Your task to perform on an android device: toggle pop-ups in chrome Image 0: 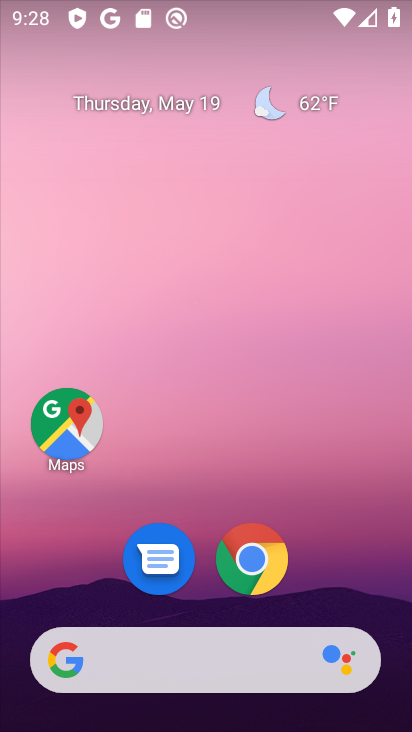
Step 0: click (256, 567)
Your task to perform on an android device: toggle pop-ups in chrome Image 1: 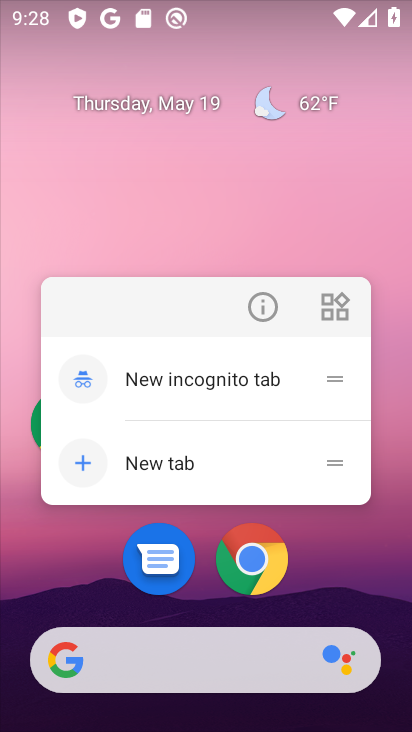
Step 1: click (258, 562)
Your task to perform on an android device: toggle pop-ups in chrome Image 2: 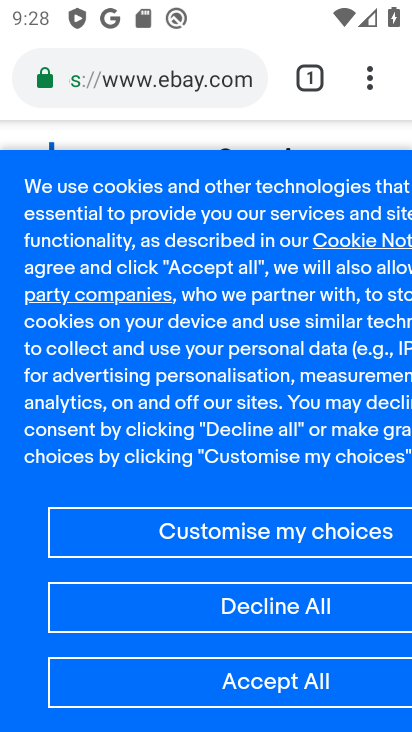
Step 2: drag from (366, 75) to (153, 621)
Your task to perform on an android device: toggle pop-ups in chrome Image 3: 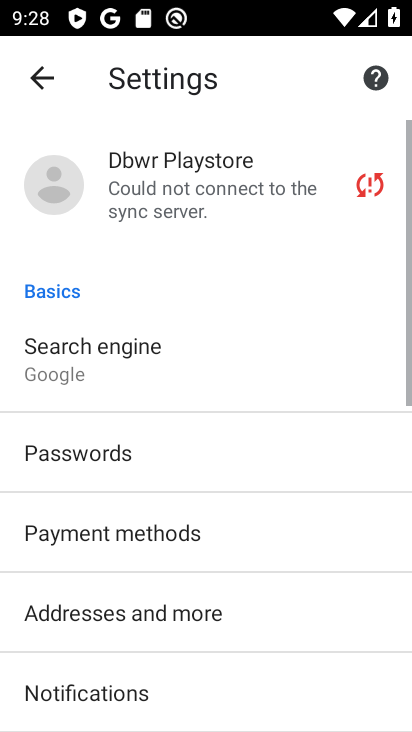
Step 3: drag from (154, 619) to (351, 119)
Your task to perform on an android device: toggle pop-ups in chrome Image 4: 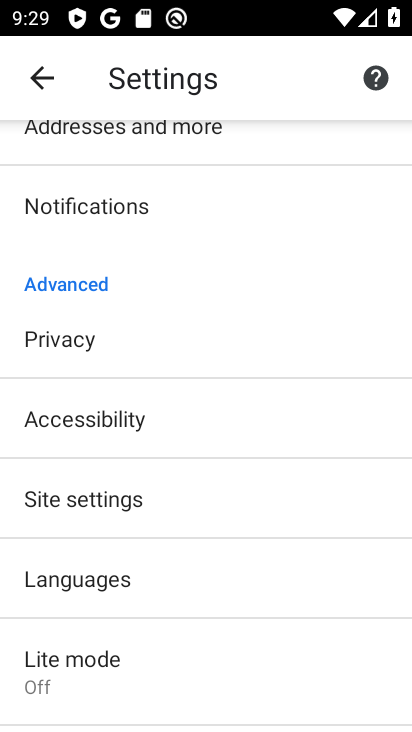
Step 4: click (151, 497)
Your task to perform on an android device: toggle pop-ups in chrome Image 5: 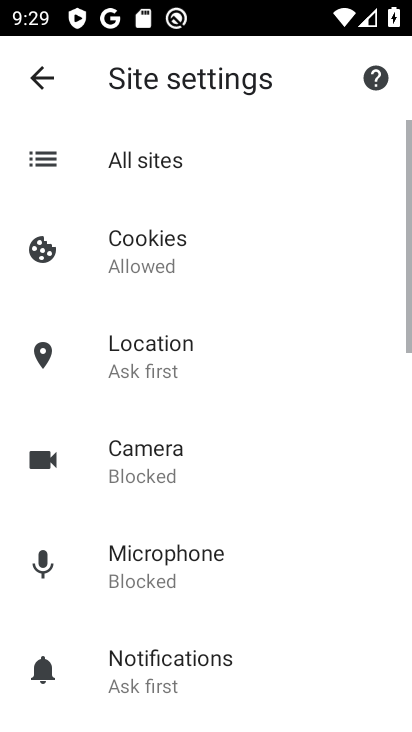
Step 5: drag from (302, 596) to (411, 221)
Your task to perform on an android device: toggle pop-ups in chrome Image 6: 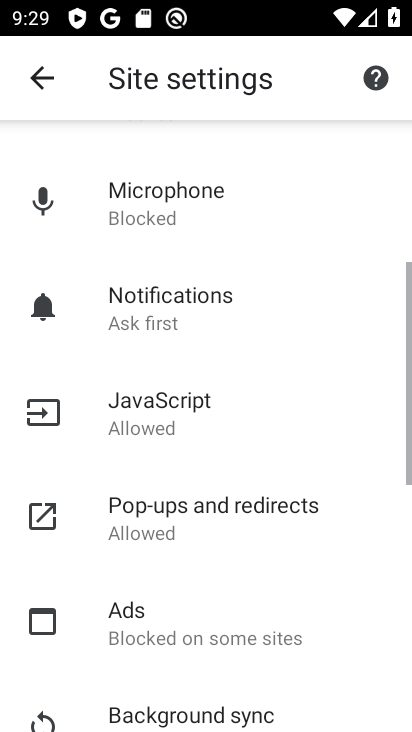
Step 6: drag from (166, 592) to (406, 241)
Your task to perform on an android device: toggle pop-ups in chrome Image 7: 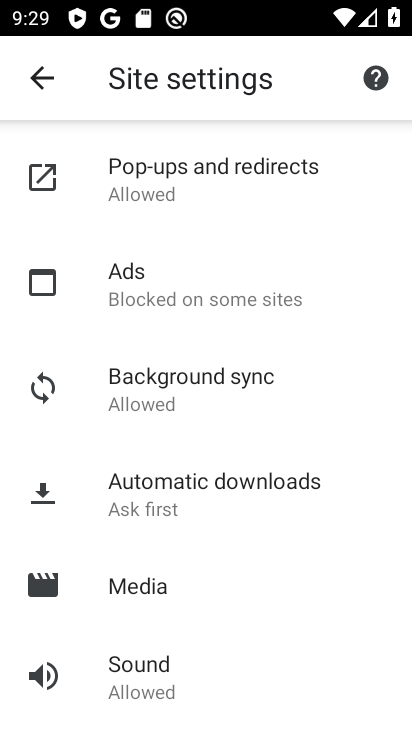
Step 7: click (226, 184)
Your task to perform on an android device: toggle pop-ups in chrome Image 8: 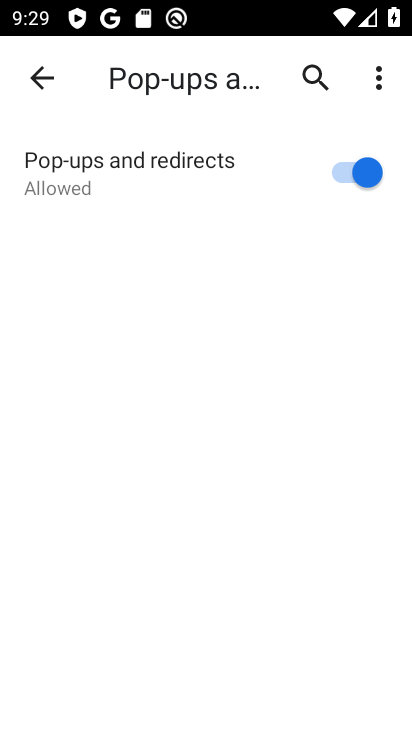
Step 8: click (342, 169)
Your task to perform on an android device: toggle pop-ups in chrome Image 9: 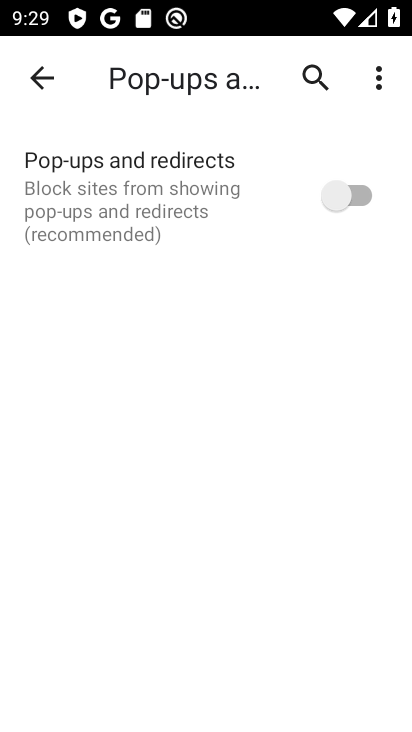
Step 9: task complete